Your task to perform on an android device: When is my next meeting? Image 0: 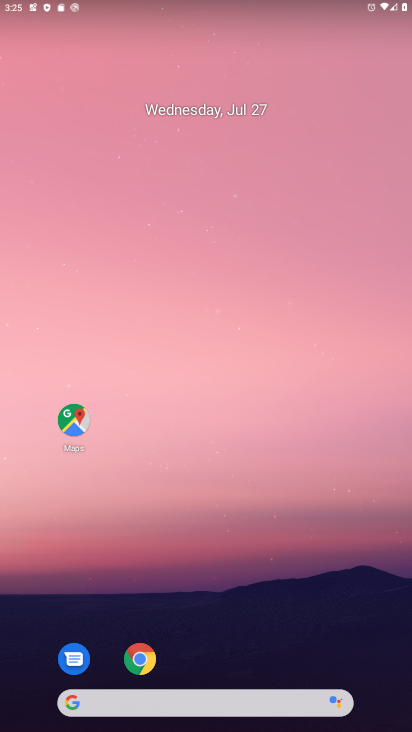
Step 0: drag from (240, 658) to (195, 72)
Your task to perform on an android device: When is my next meeting? Image 1: 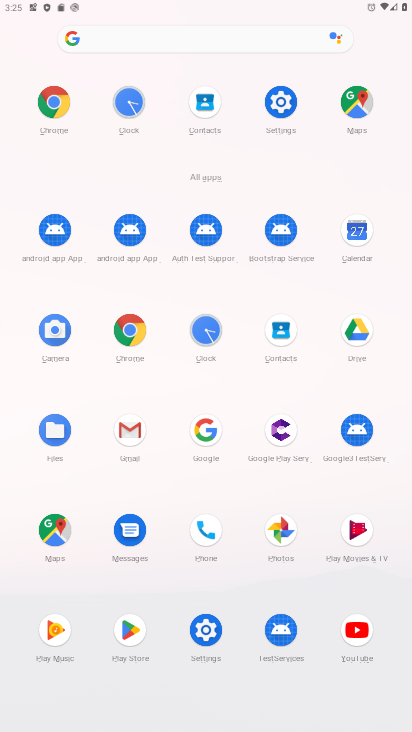
Step 1: click (365, 233)
Your task to perform on an android device: When is my next meeting? Image 2: 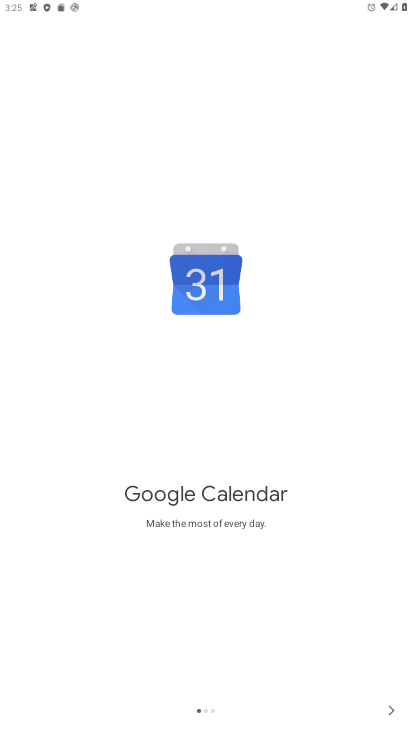
Step 2: click (392, 710)
Your task to perform on an android device: When is my next meeting? Image 3: 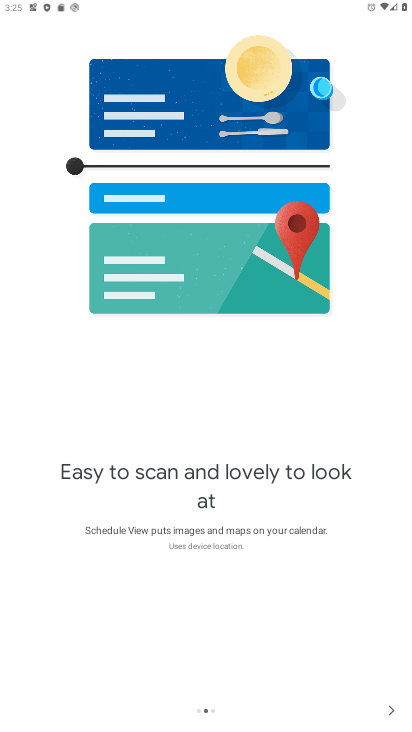
Step 3: click (392, 709)
Your task to perform on an android device: When is my next meeting? Image 4: 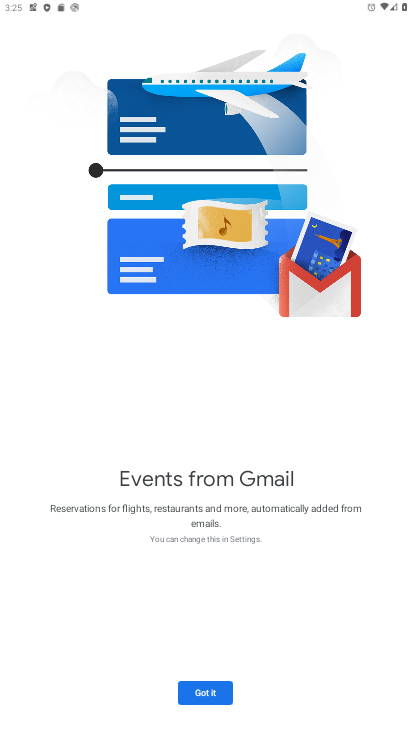
Step 4: click (226, 689)
Your task to perform on an android device: When is my next meeting? Image 5: 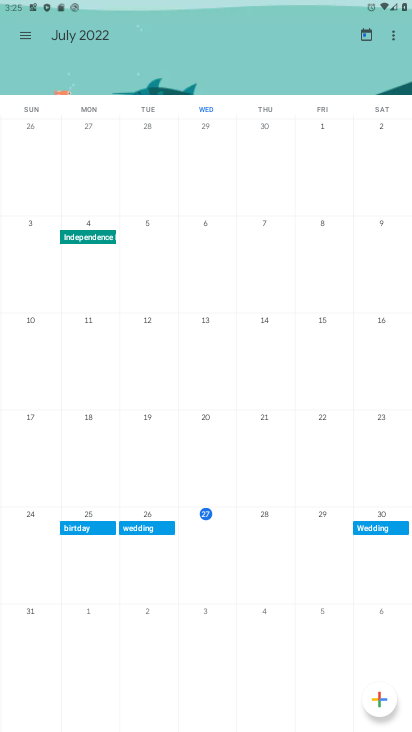
Step 5: click (24, 34)
Your task to perform on an android device: When is my next meeting? Image 6: 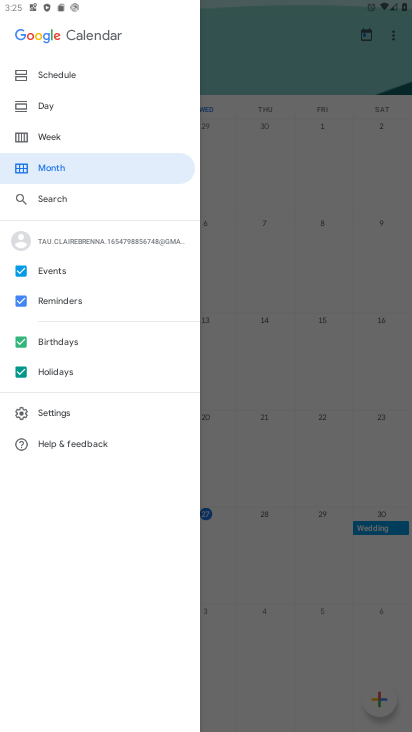
Step 6: click (55, 75)
Your task to perform on an android device: When is my next meeting? Image 7: 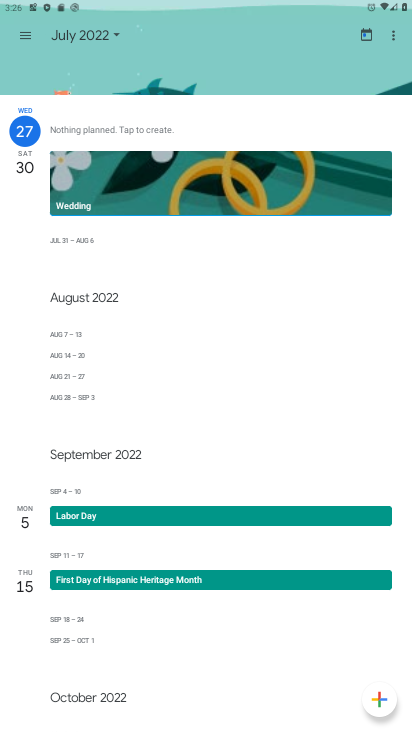
Step 7: task complete